Your task to perform on an android device: uninstall "Facebook" Image 0: 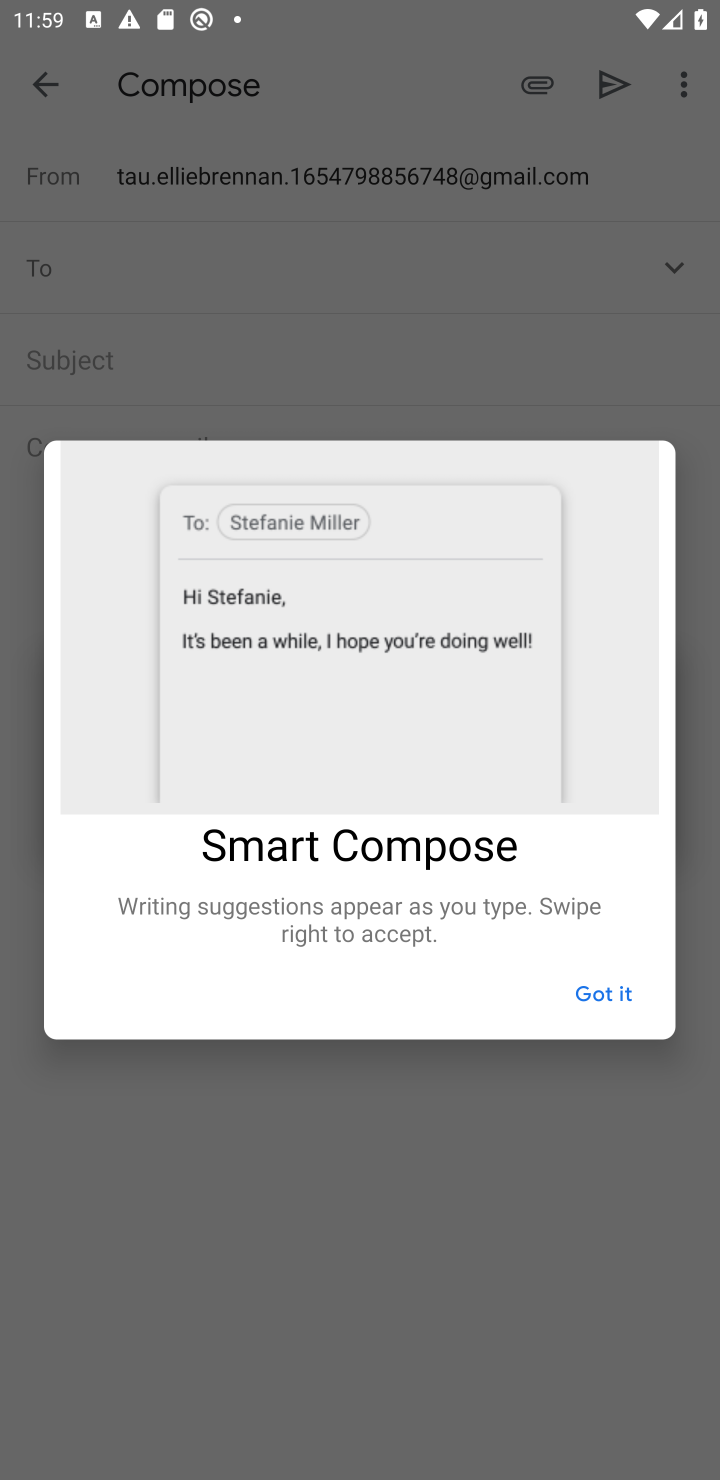
Step 0: press home button
Your task to perform on an android device: uninstall "Facebook" Image 1: 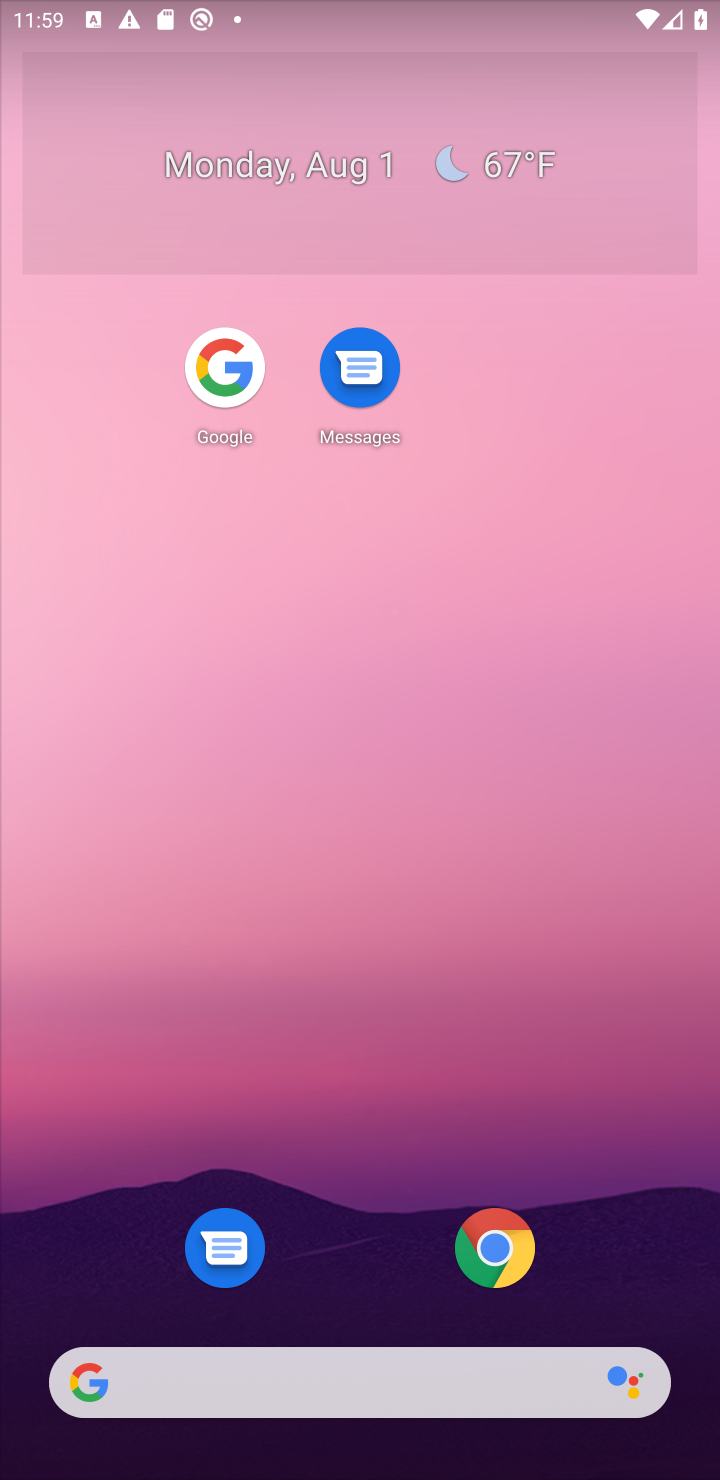
Step 1: drag from (601, 940) to (606, 173)
Your task to perform on an android device: uninstall "Facebook" Image 2: 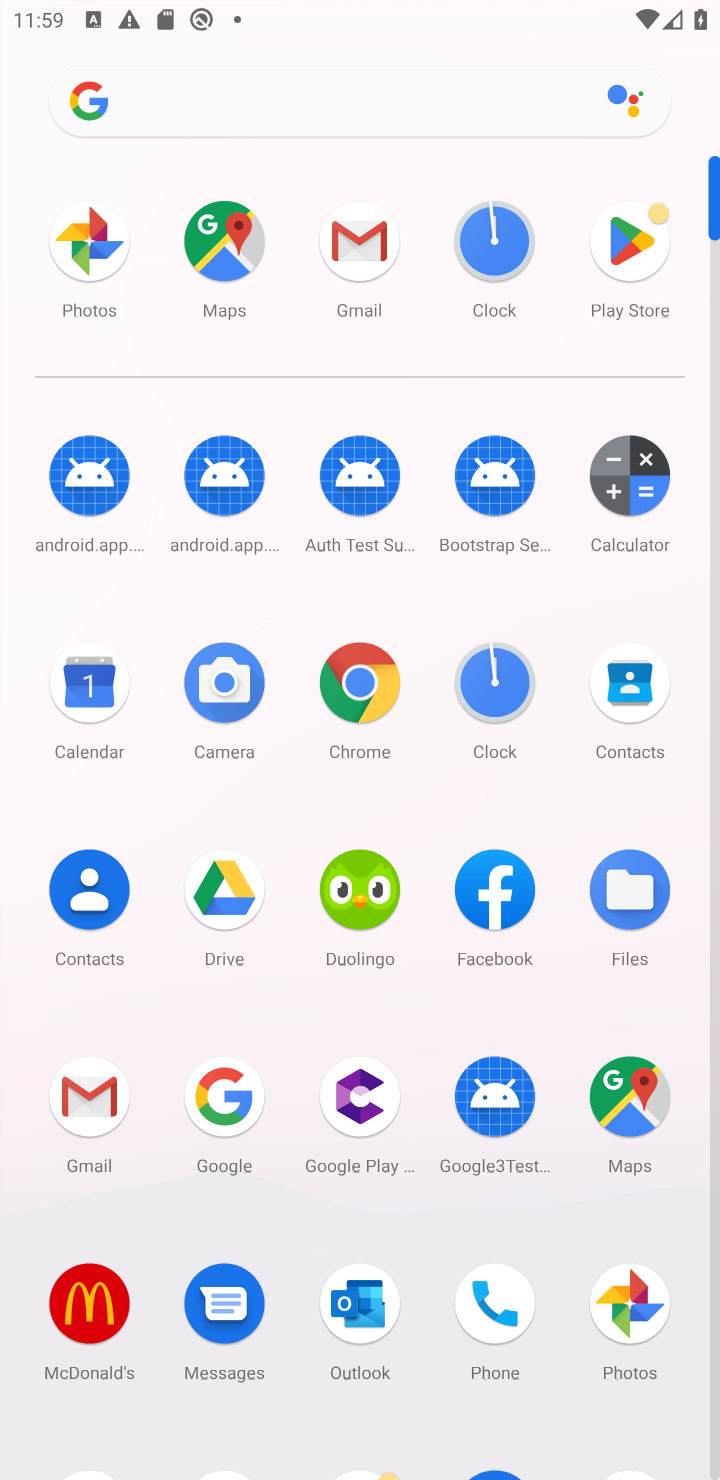
Step 2: drag from (423, 1220) to (419, 254)
Your task to perform on an android device: uninstall "Facebook" Image 3: 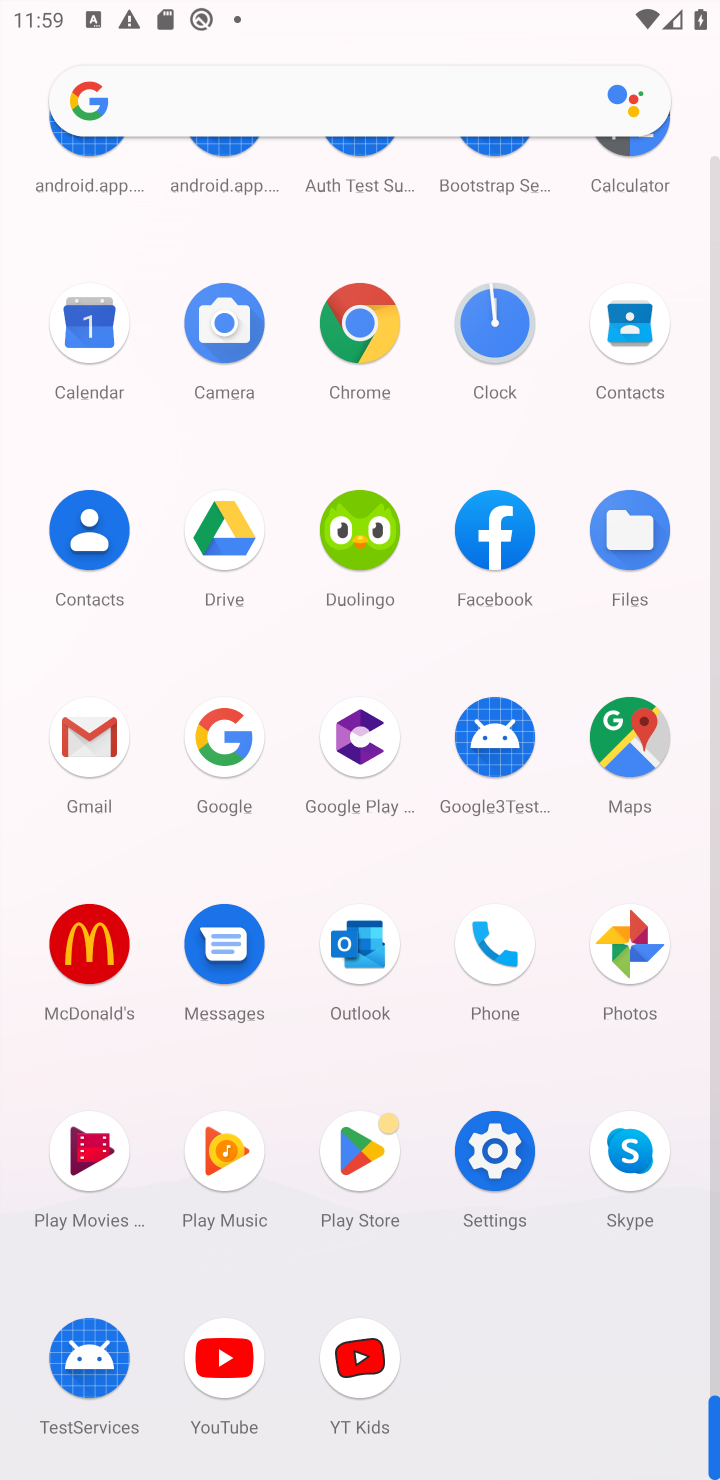
Step 3: click (371, 1152)
Your task to perform on an android device: uninstall "Facebook" Image 4: 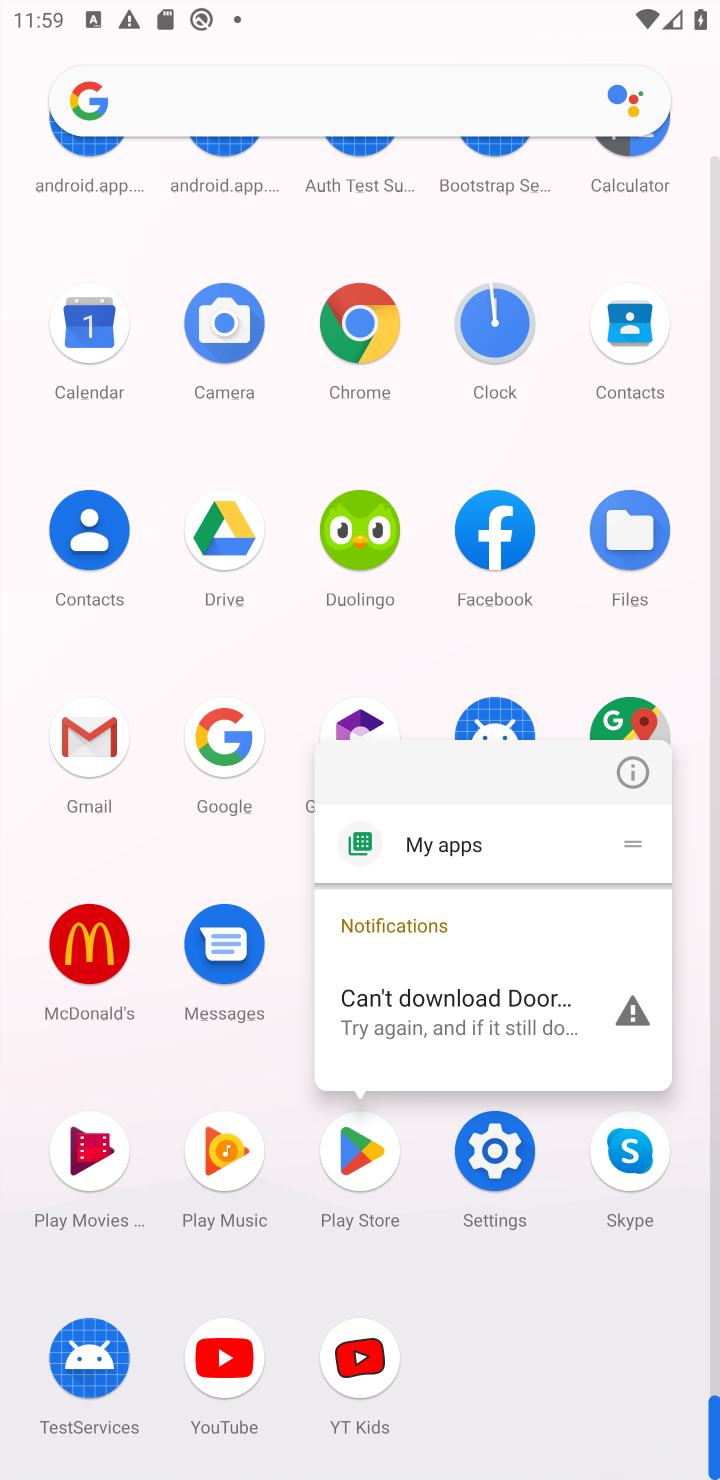
Step 4: click (373, 1150)
Your task to perform on an android device: uninstall "Facebook" Image 5: 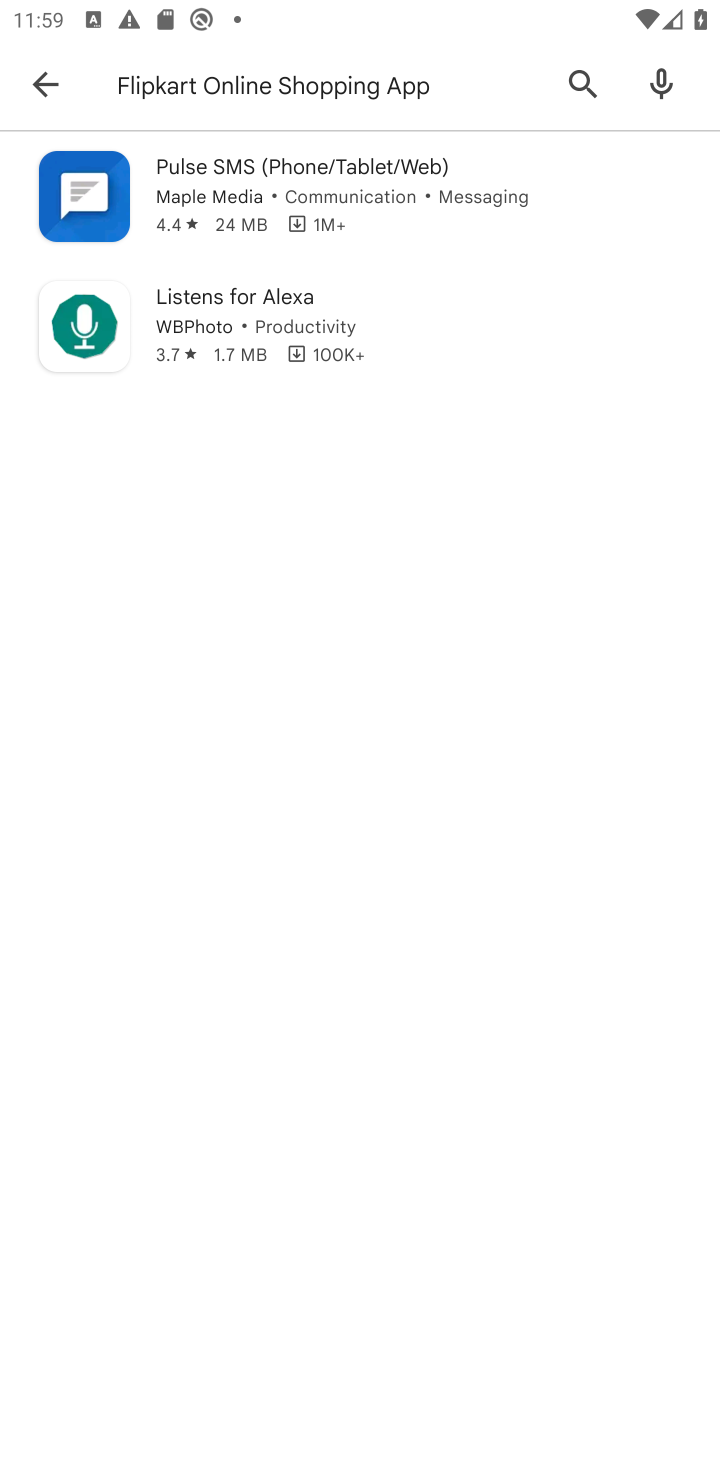
Step 5: click (408, 75)
Your task to perform on an android device: uninstall "Facebook" Image 6: 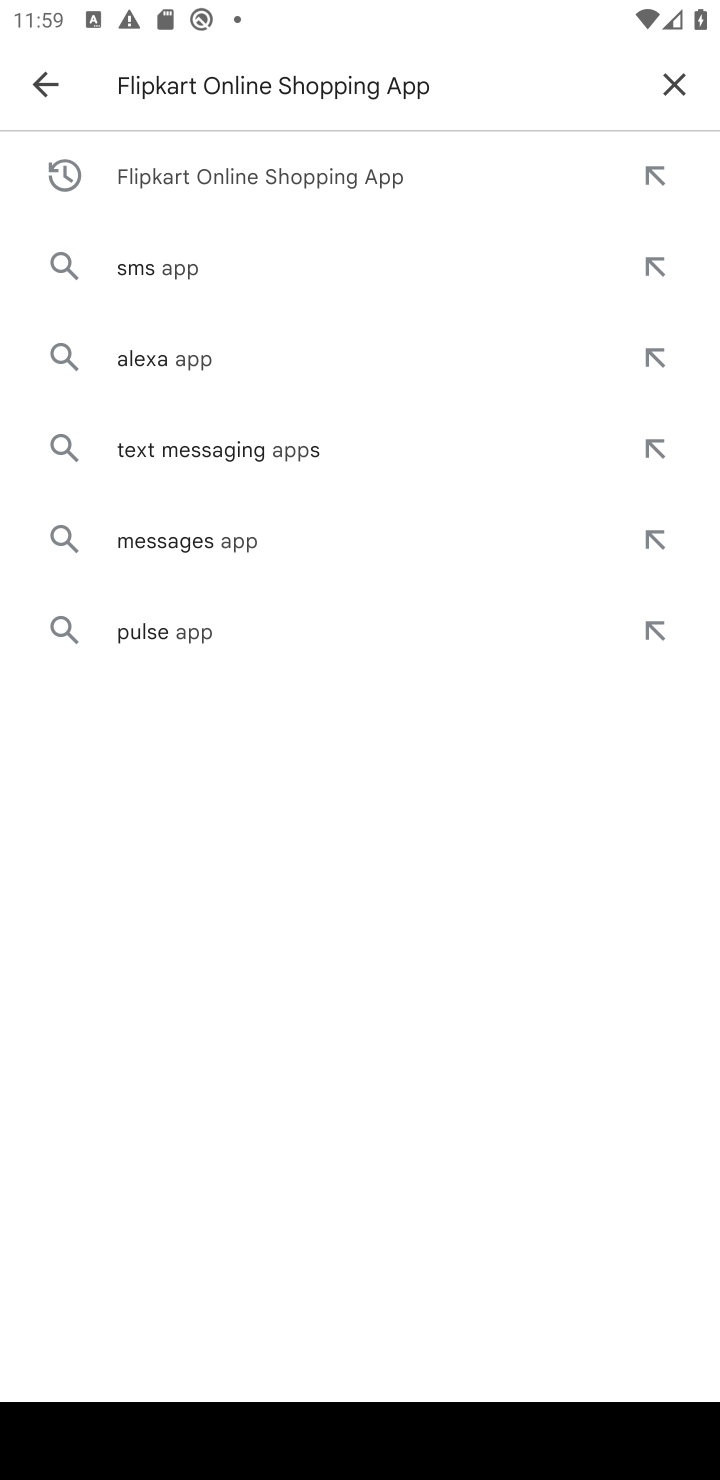
Step 6: click (666, 89)
Your task to perform on an android device: uninstall "Facebook" Image 7: 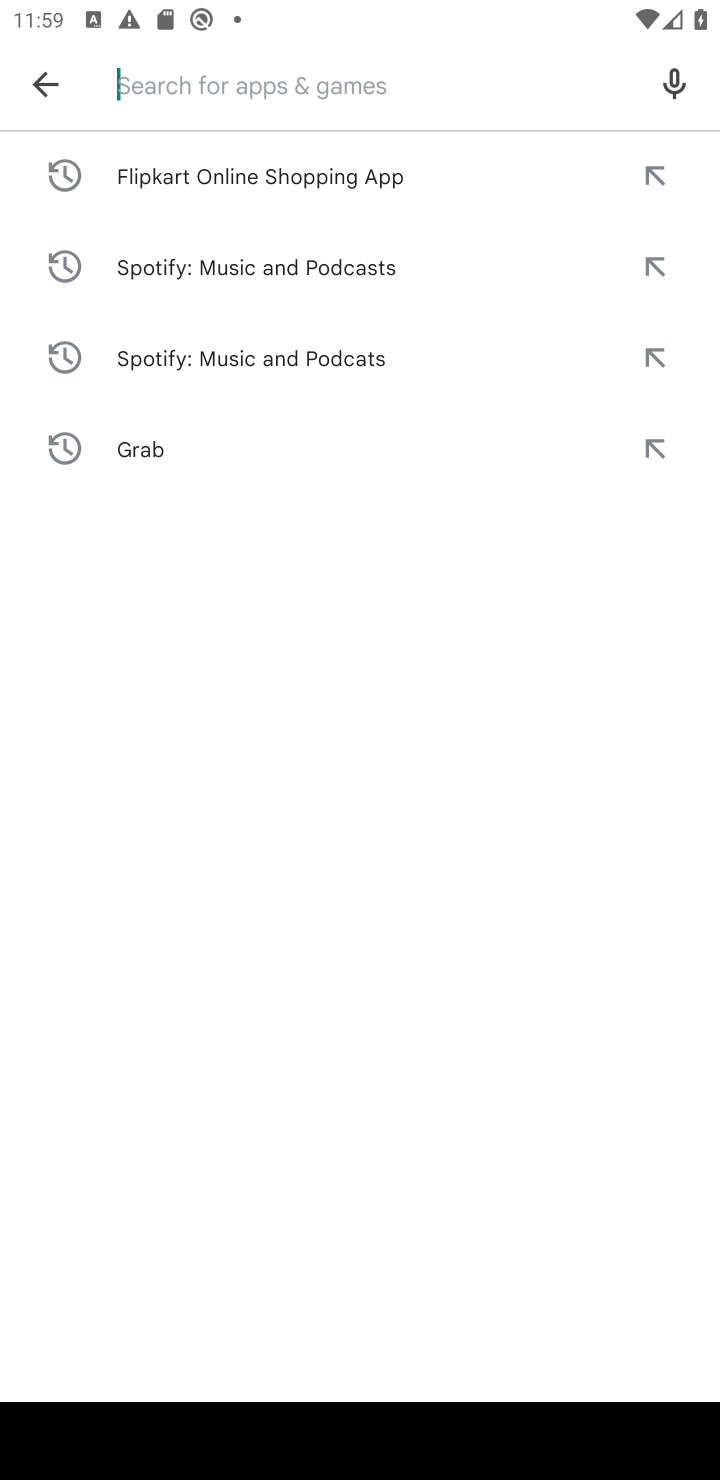
Step 7: type "Facebook"
Your task to perform on an android device: uninstall "Facebook" Image 8: 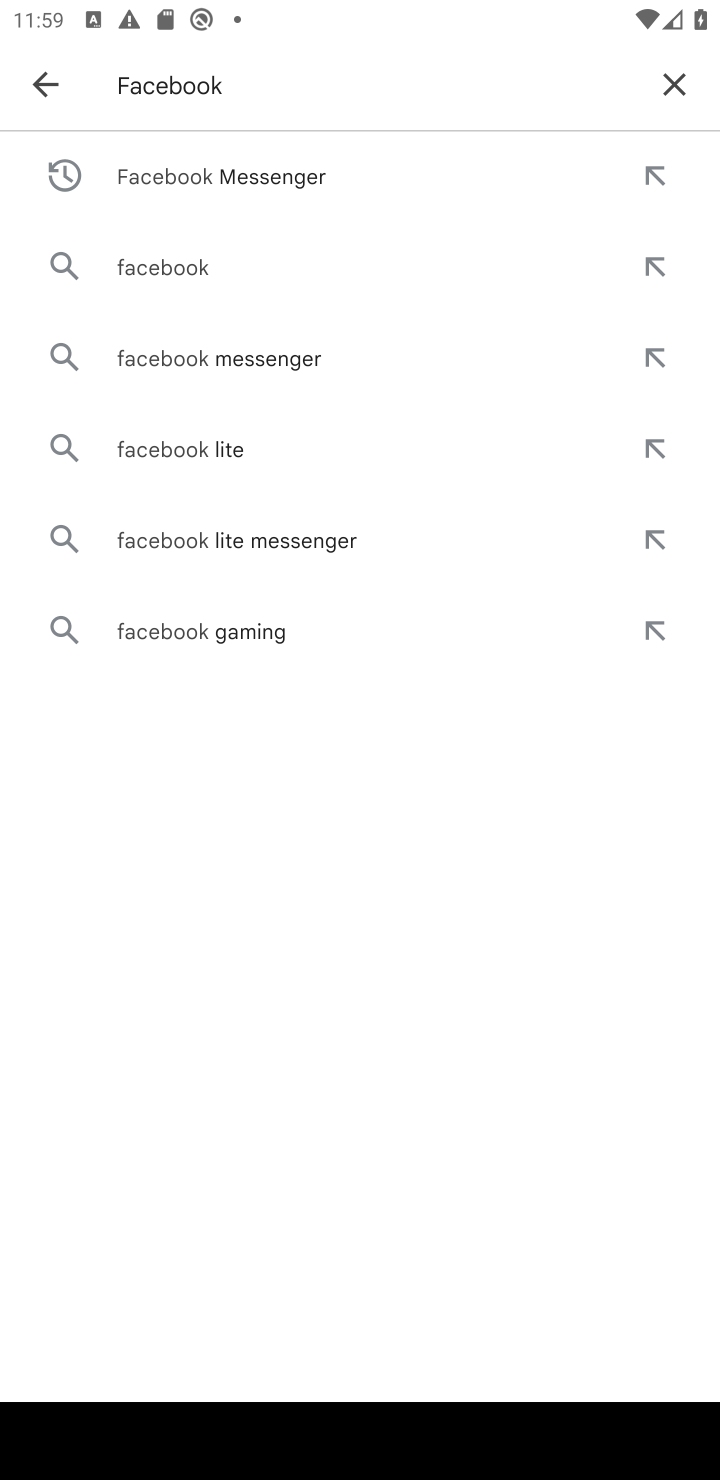
Step 8: press enter
Your task to perform on an android device: uninstall "Facebook" Image 9: 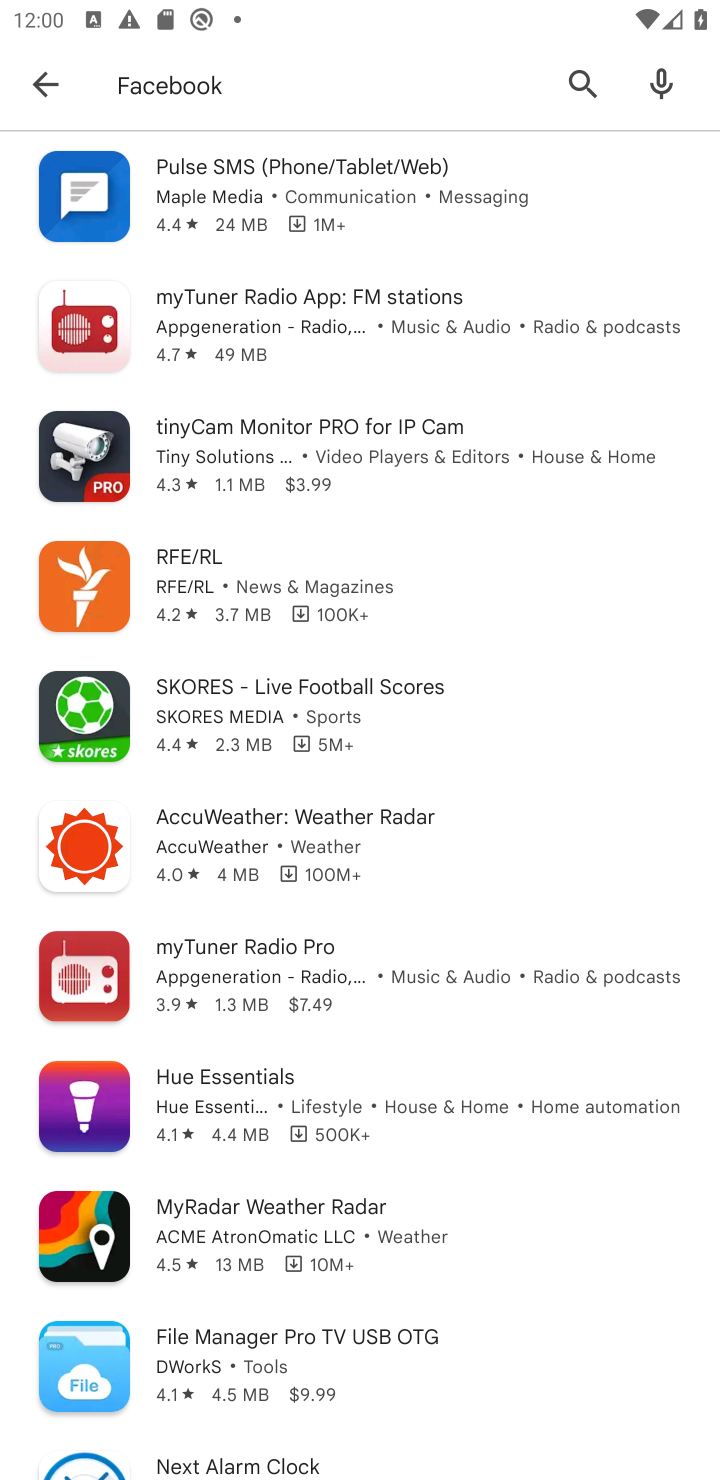
Step 9: task complete